Your task to perform on an android device: turn notification dots off Image 0: 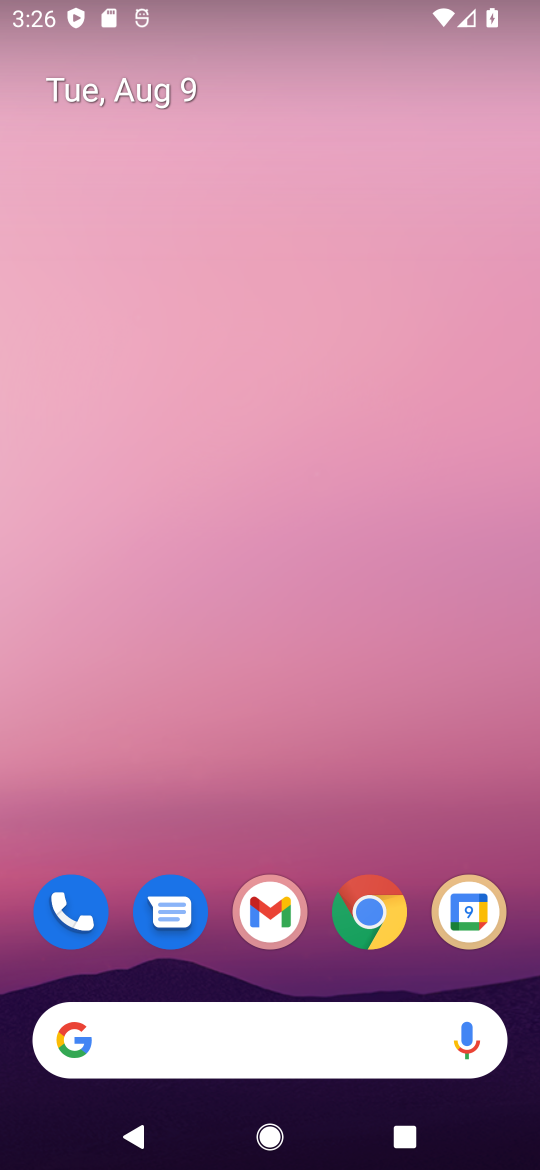
Step 0: drag from (309, 777) to (356, 371)
Your task to perform on an android device: turn notification dots off Image 1: 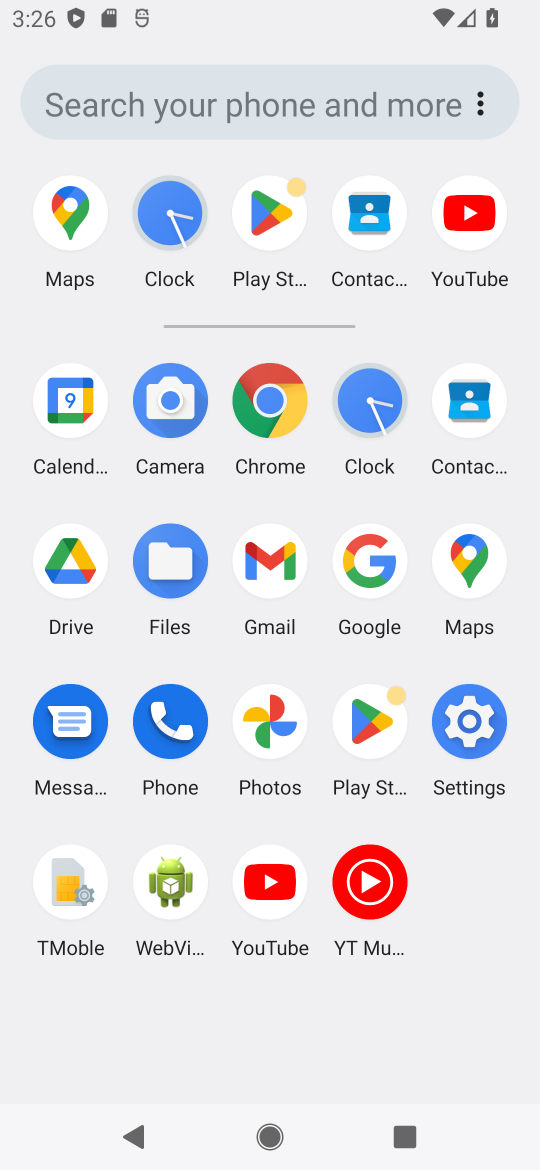
Step 1: click (462, 713)
Your task to perform on an android device: turn notification dots off Image 2: 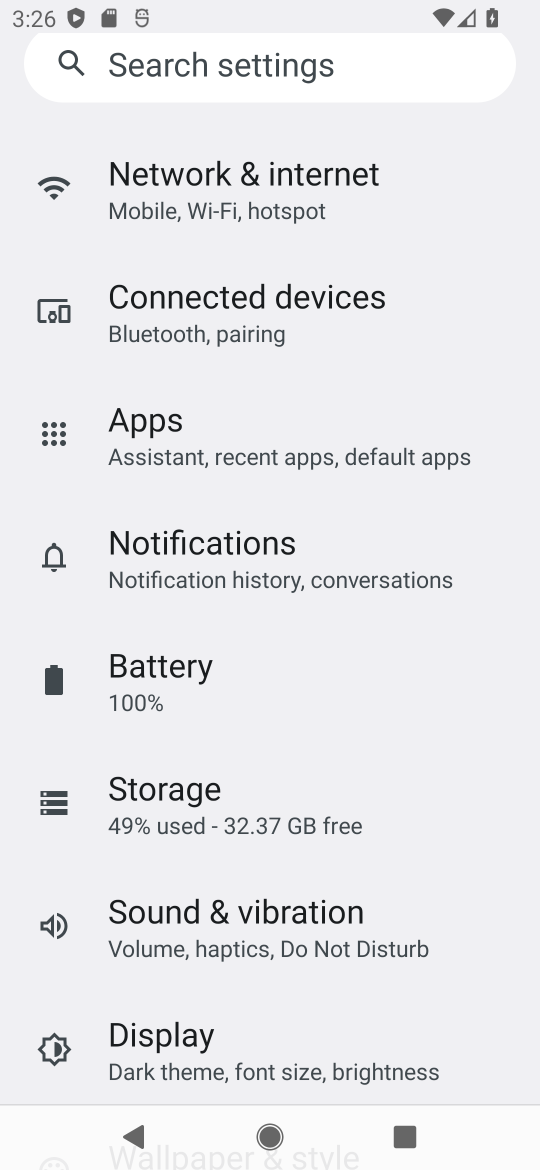
Step 2: click (233, 531)
Your task to perform on an android device: turn notification dots off Image 3: 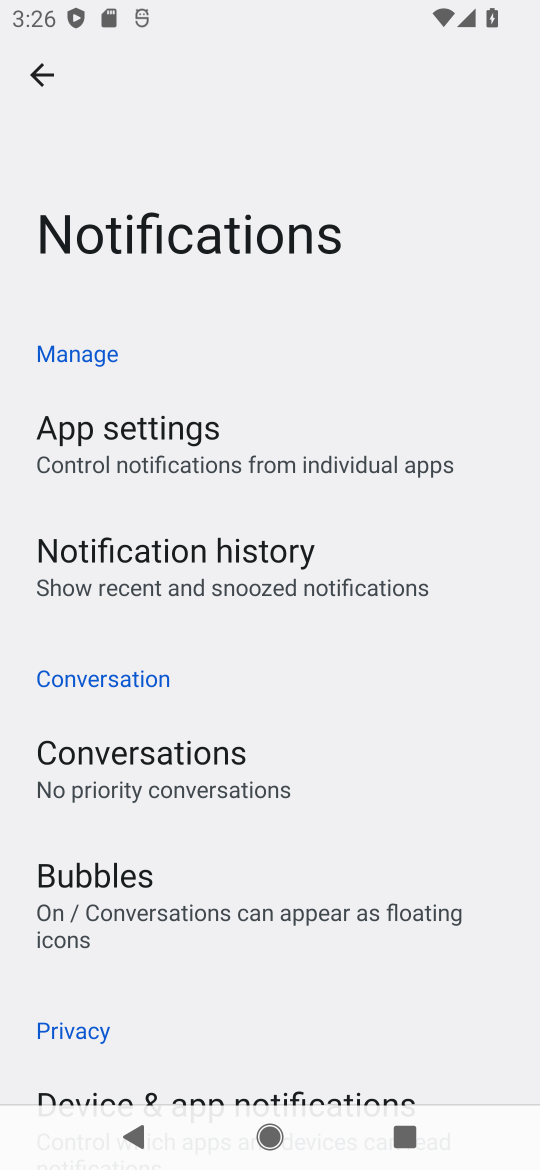
Step 3: drag from (341, 771) to (329, 453)
Your task to perform on an android device: turn notification dots off Image 4: 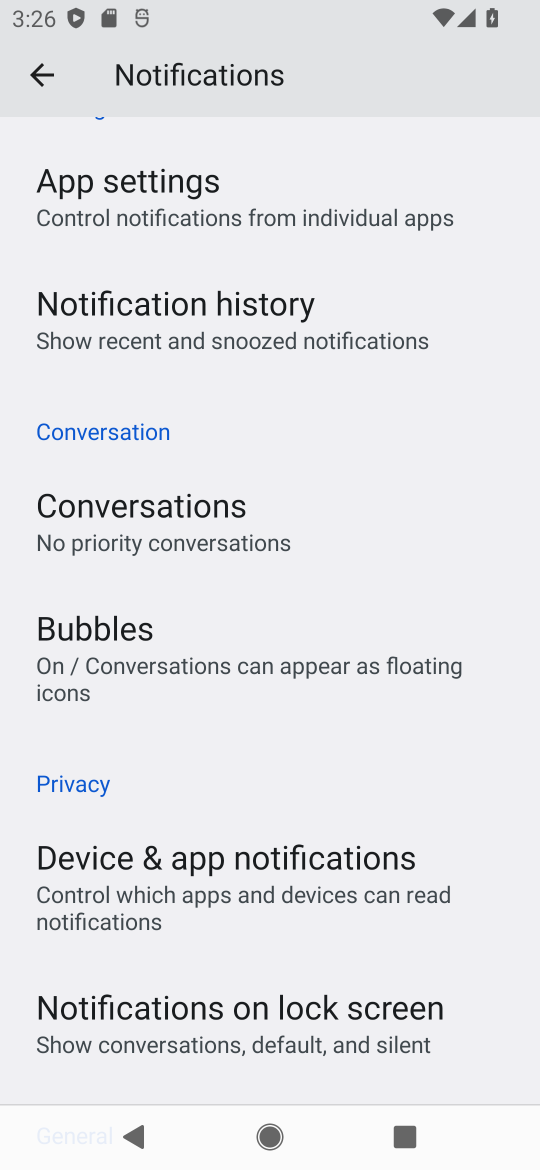
Step 4: drag from (238, 789) to (212, 319)
Your task to perform on an android device: turn notification dots off Image 5: 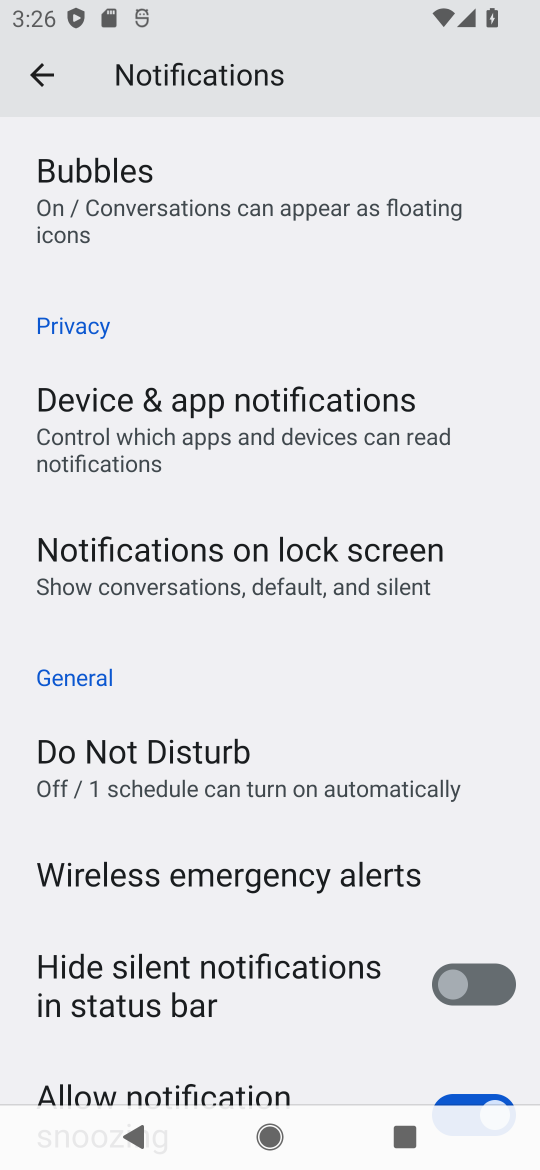
Step 5: drag from (281, 666) to (237, 166)
Your task to perform on an android device: turn notification dots off Image 6: 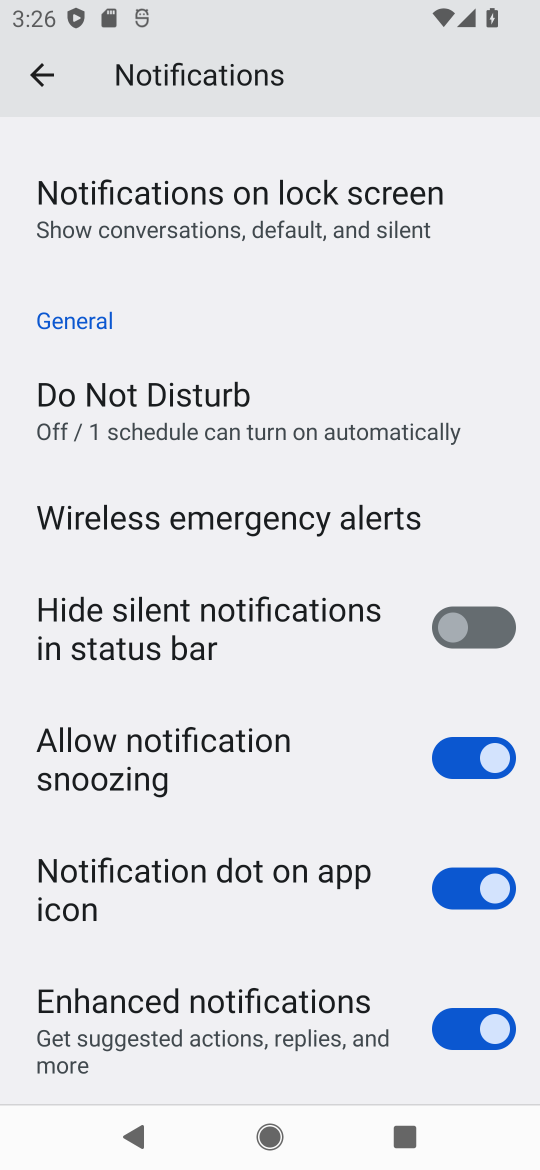
Step 6: click (493, 886)
Your task to perform on an android device: turn notification dots off Image 7: 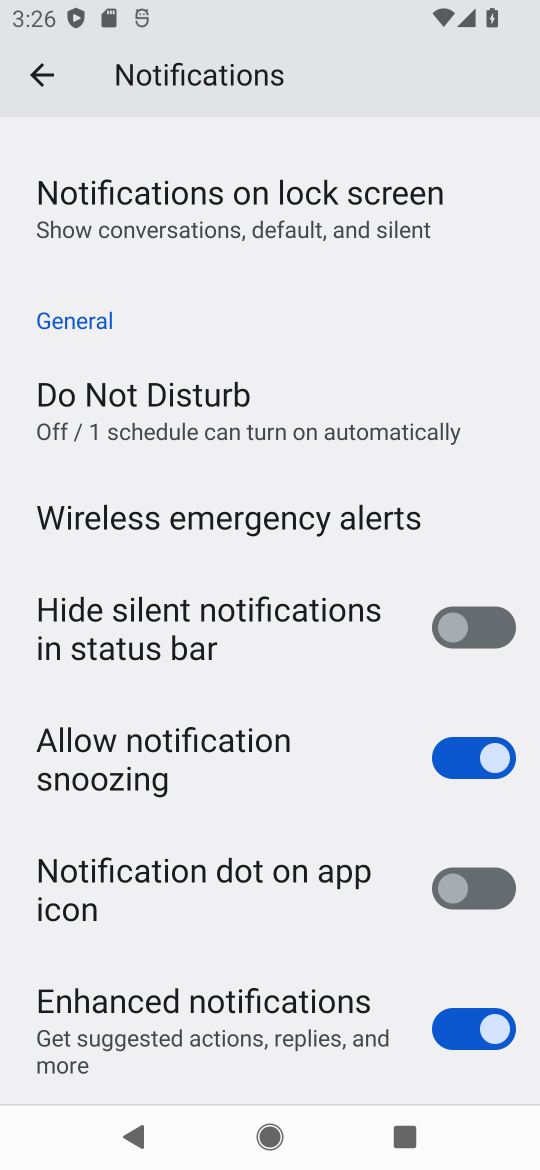
Step 7: task complete